Your task to perform on an android device: Go to location settings Image 0: 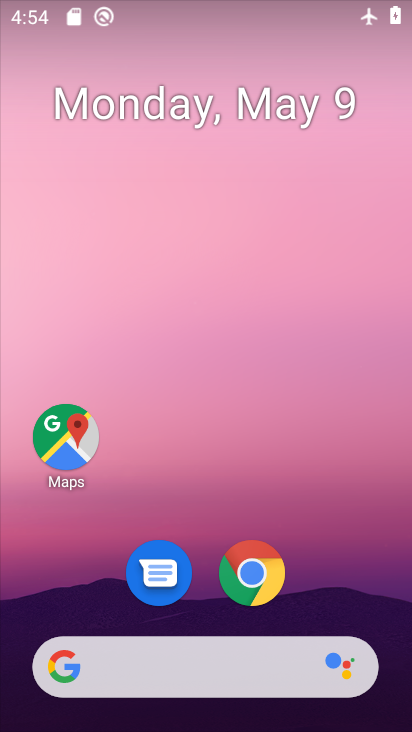
Step 0: drag from (364, 618) to (333, 175)
Your task to perform on an android device: Go to location settings Image 1: 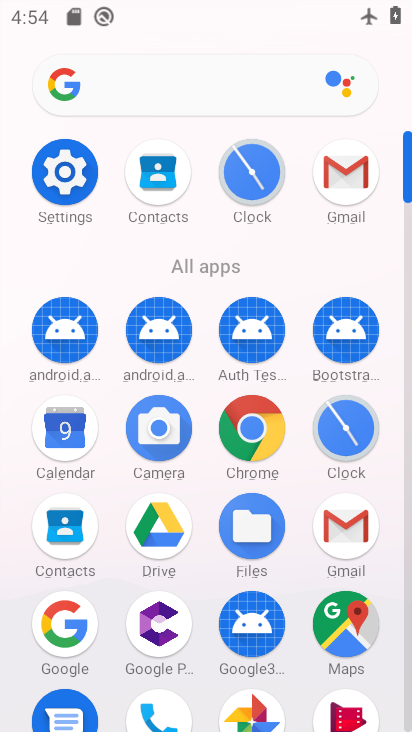
Step 1: click (408, 704)
Your task to perform on an android device: Go to location settings Image 2: 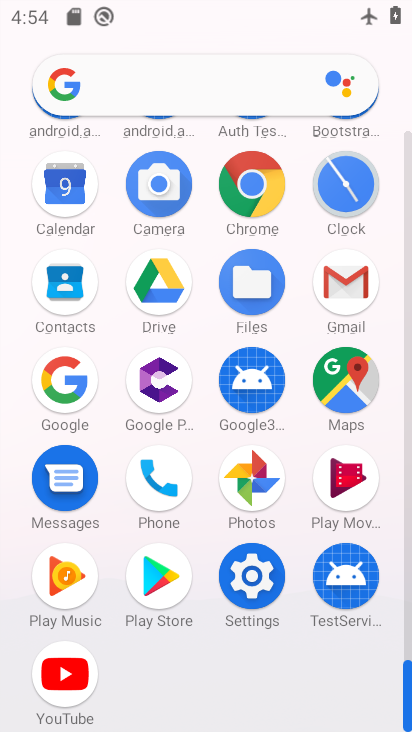
Step 2: click (252, 578)
Your task to perform on an android device: Go to location settings Image 3: 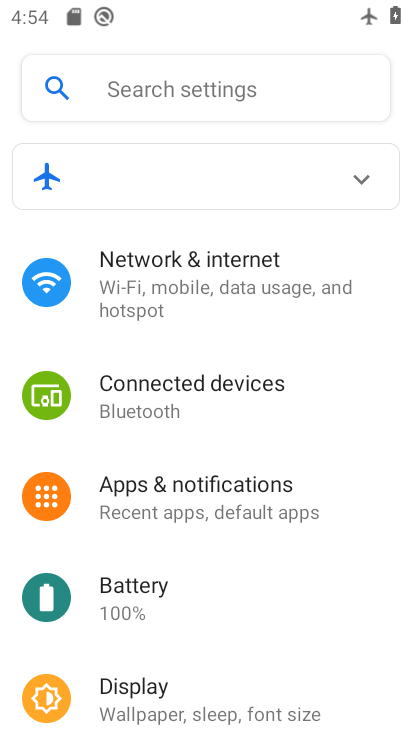
Step 3: drag from (354, 657) to (299, 164)
Your task to perform on an android device: Go to location settings Image 4: 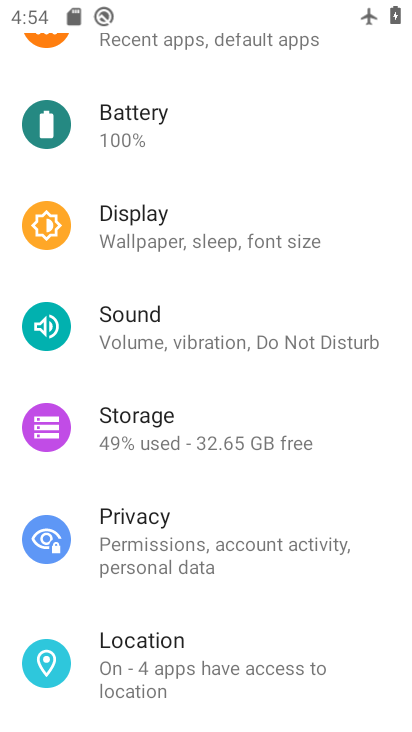
Step 4: click (146, 659)
Your task to perform on an android device: Go to location settings Image 5: 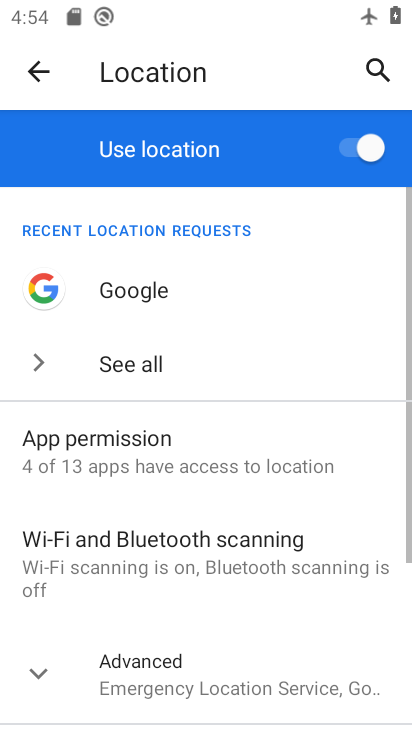
Step 5: drag from (326, 619) to (265, 307)
Your task to perform on an android device: Go to location settings Image 6: 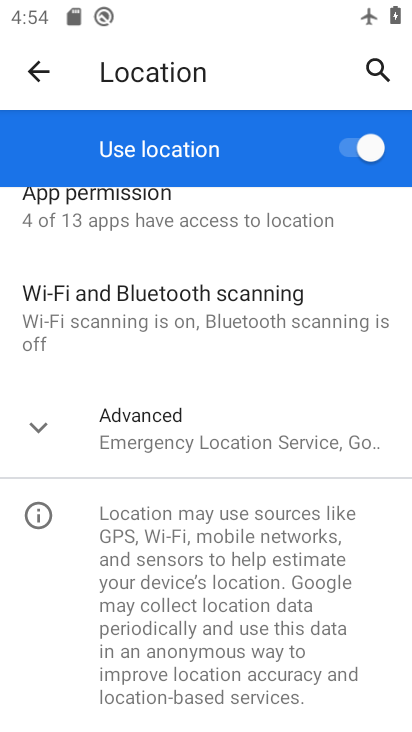
Step 6: click (44, 435)
Your task to perform on an android device: Go to location settings Image 7: 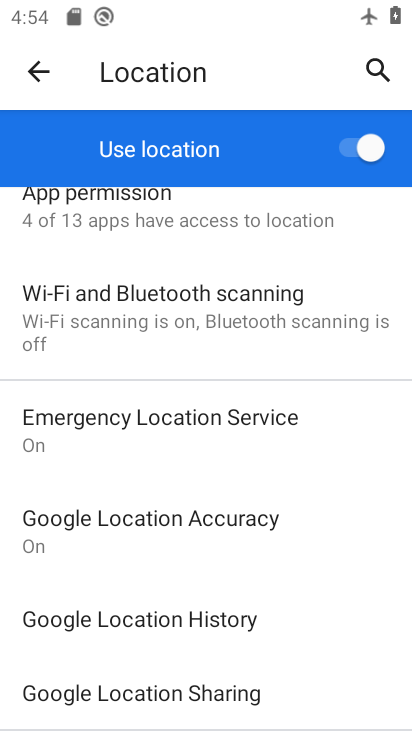
Step 7: task complete